Your task to perform on an android device: install app "Truecaller" Image 0: 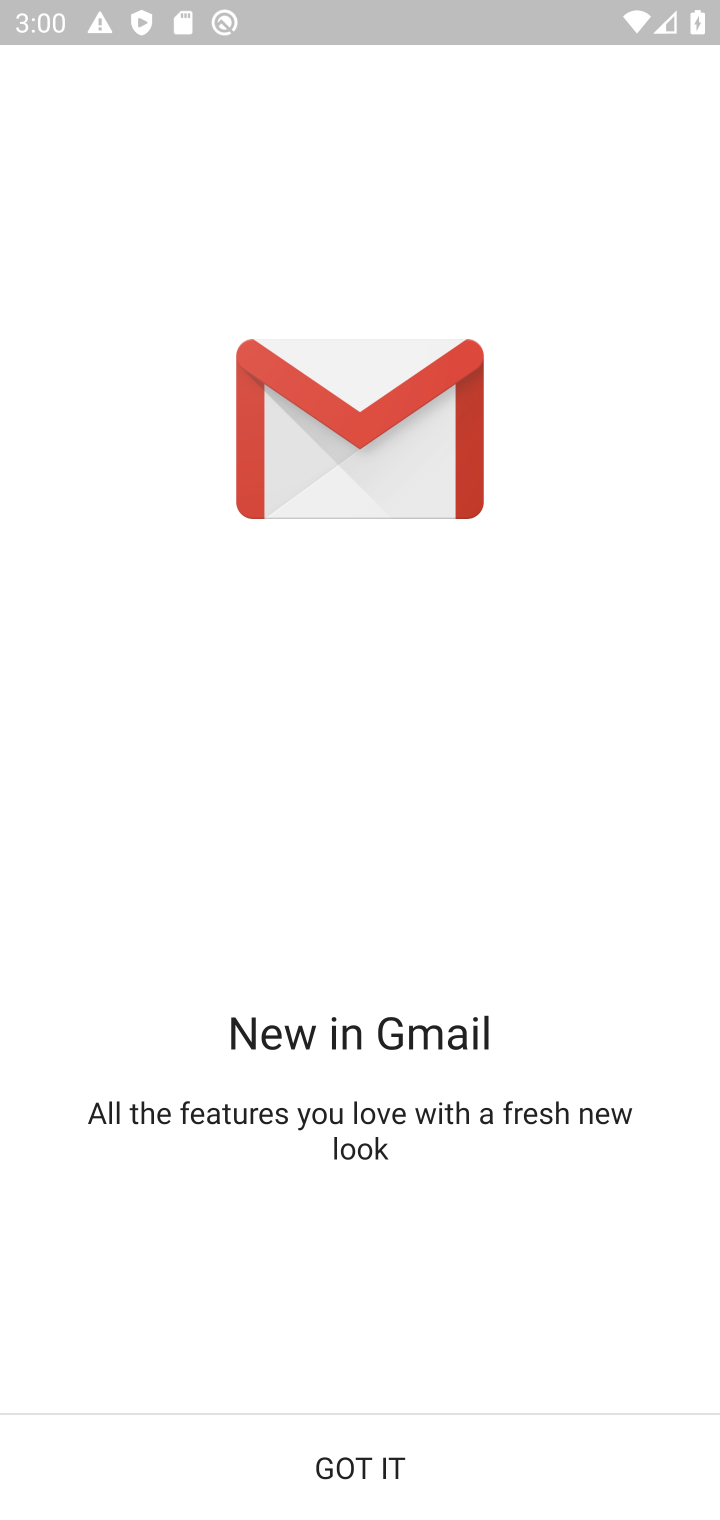
Step 0: press home button
Your task to perform on an android device: install app "Truecaller" Image 1: 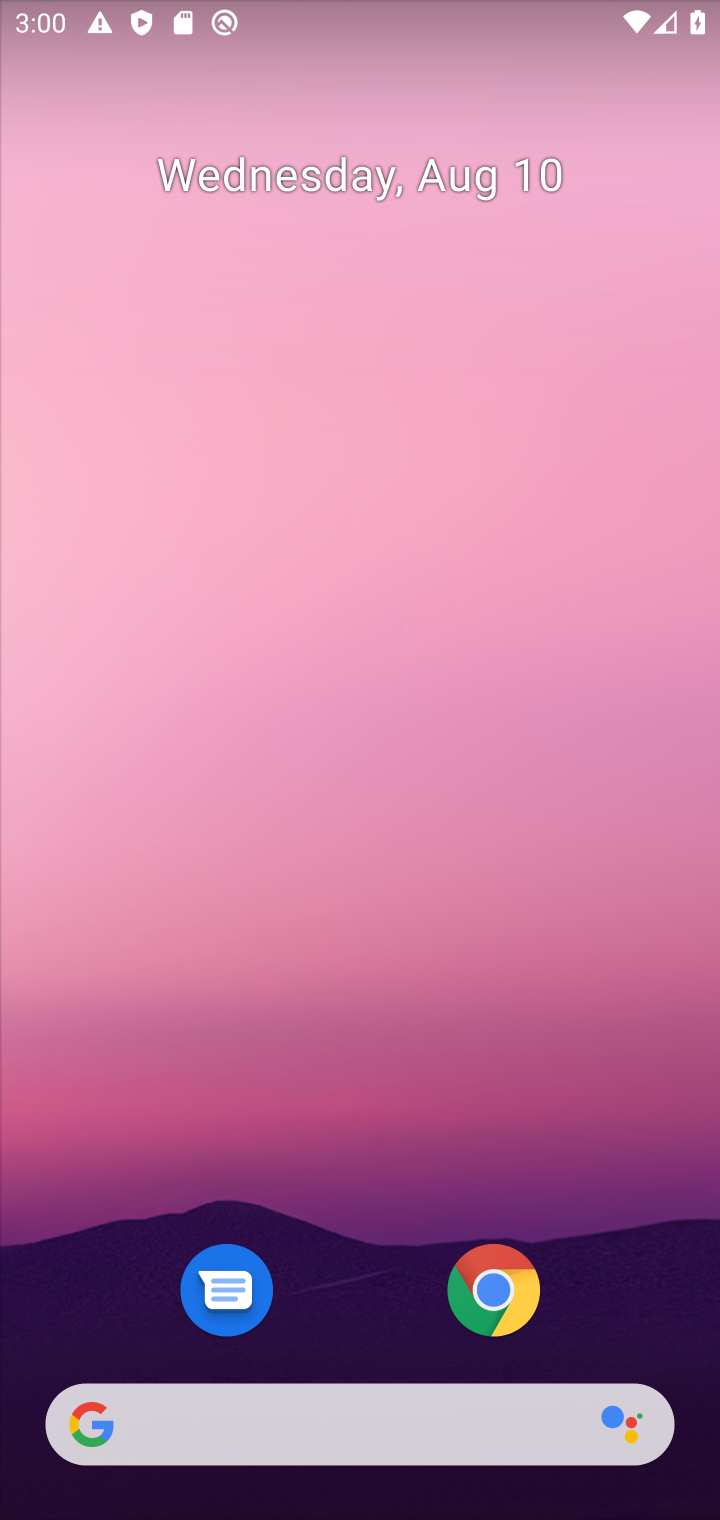
Step 1: drag from (316, 1364) to (160, 20)
Your task to perform on an android device: install app "Truecaller" Image 2: 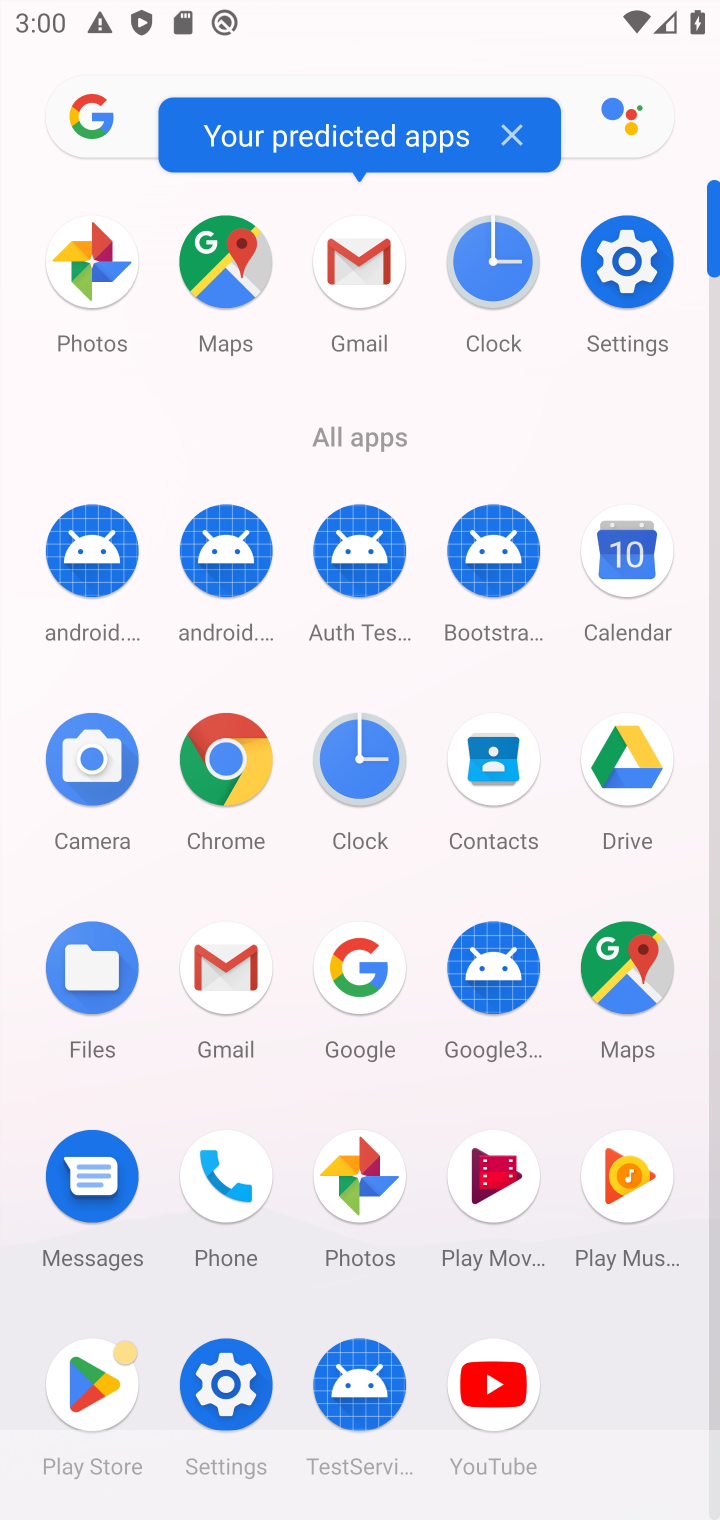
Step 2: click (82, 1407)
Your task to perform on an android device: install app "Truecaller" Image 3: 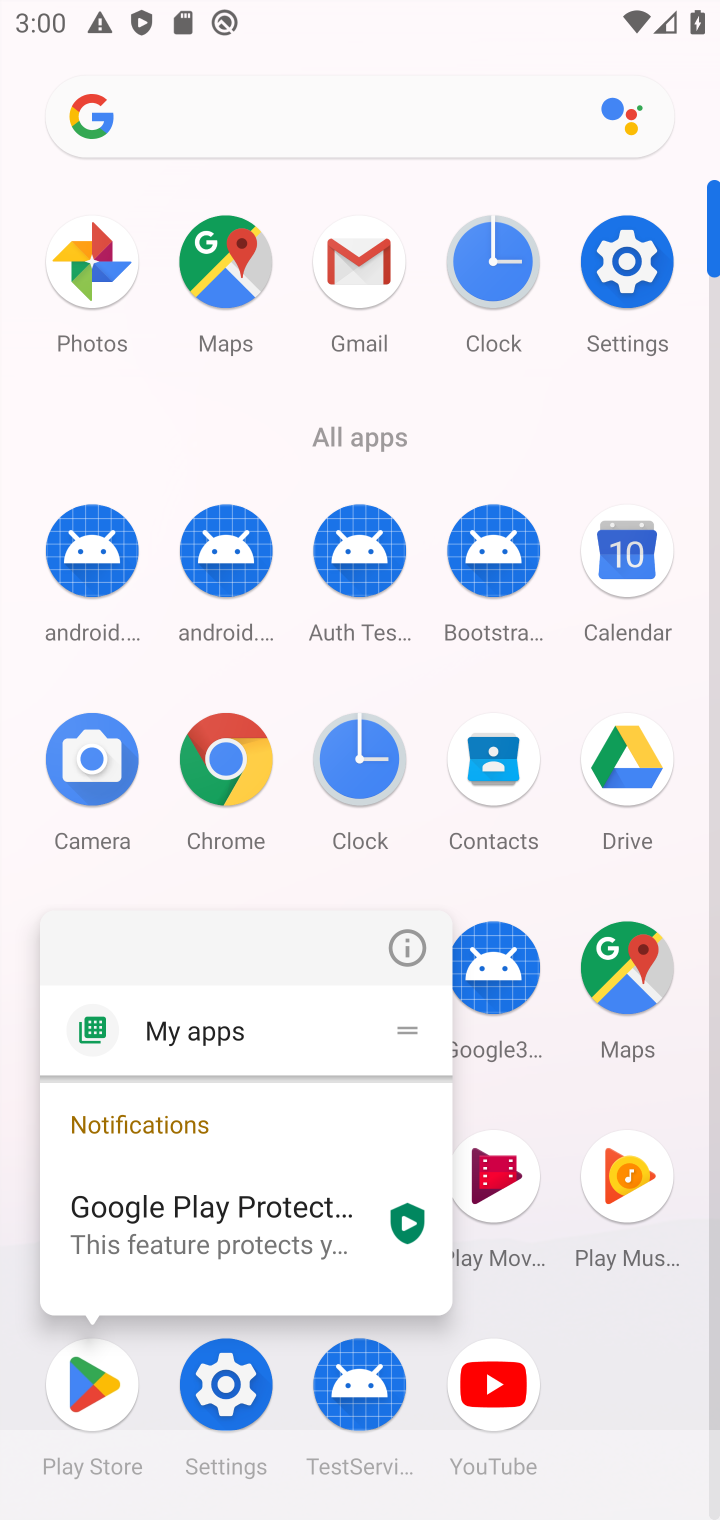
Step 3: click (122, 1396)
Your task to perform on an android device: install app "Truecaller" Image 4: 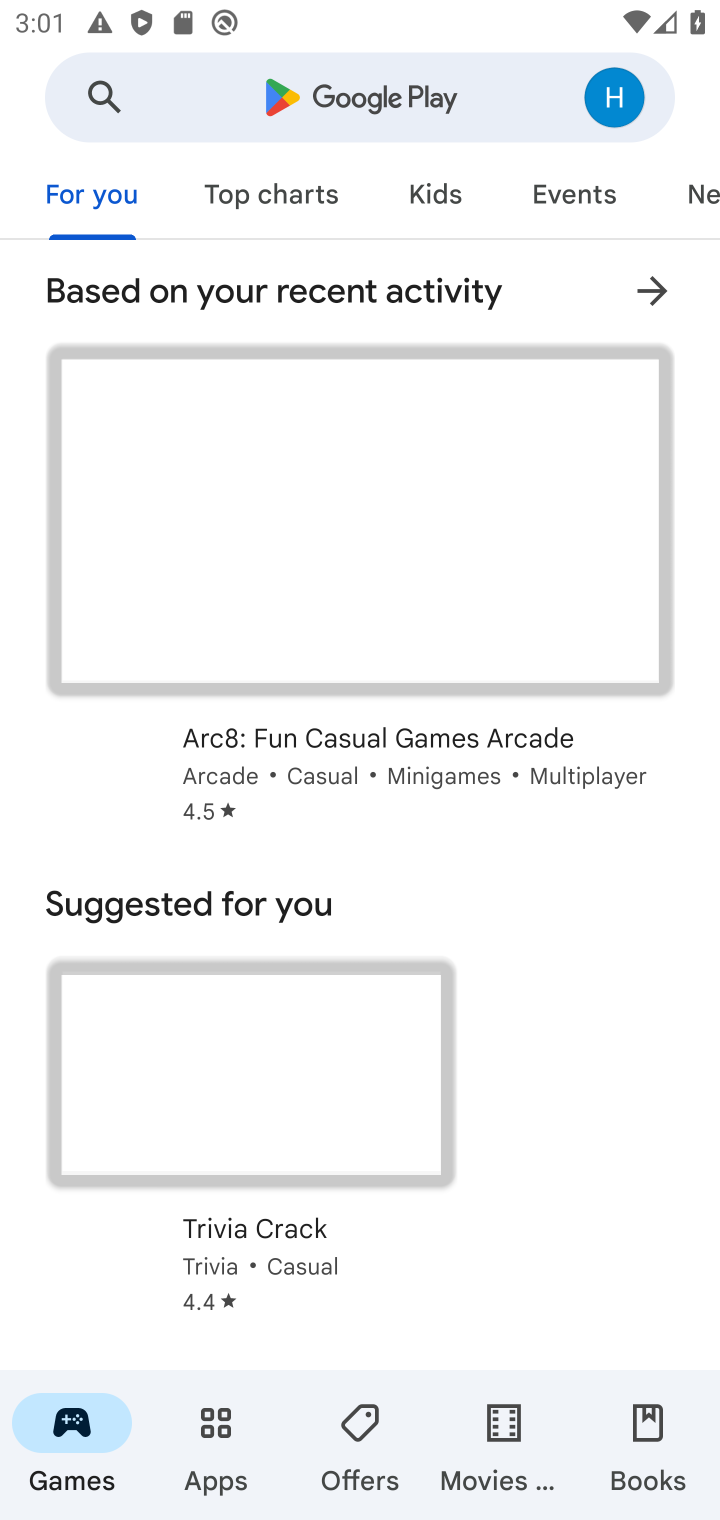
Step 4: click (376, 123)
Your task to perform on an android device: install app "Truecaller" Image 5: 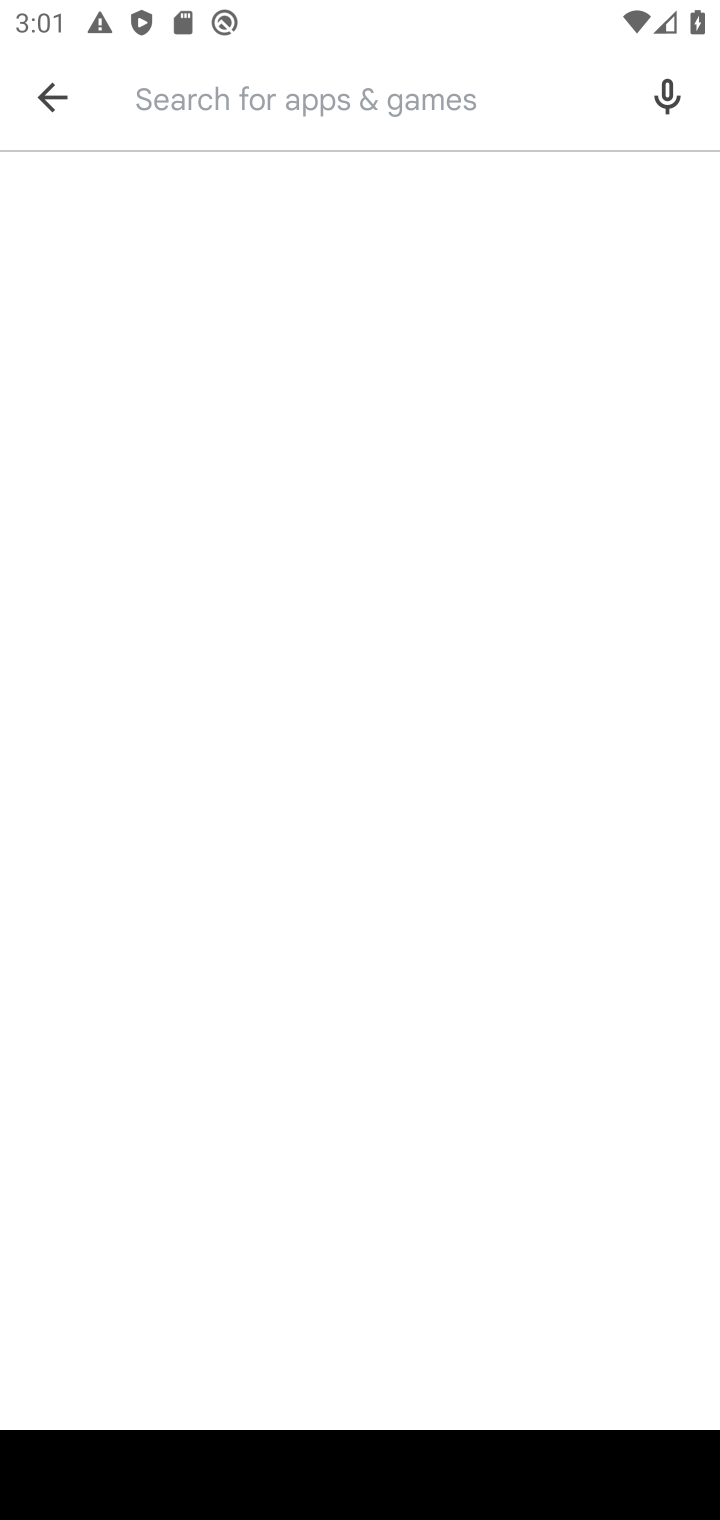
Step 5: type "Truecaller"
Your task to perform on an android device: install app "Truecaller" Image 6: 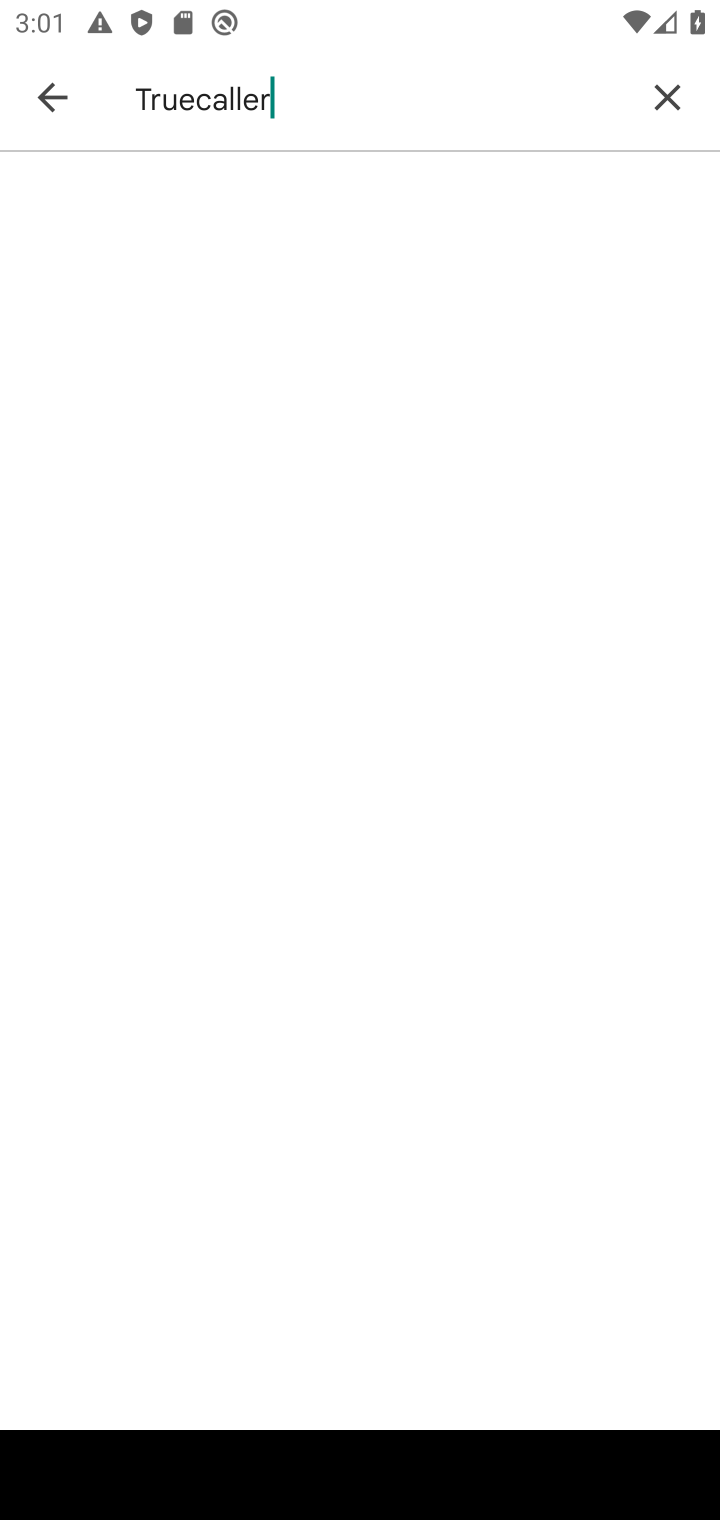
Step 6: type ""
Your task to perform on an android device: install app "Truecaller" Image 7: 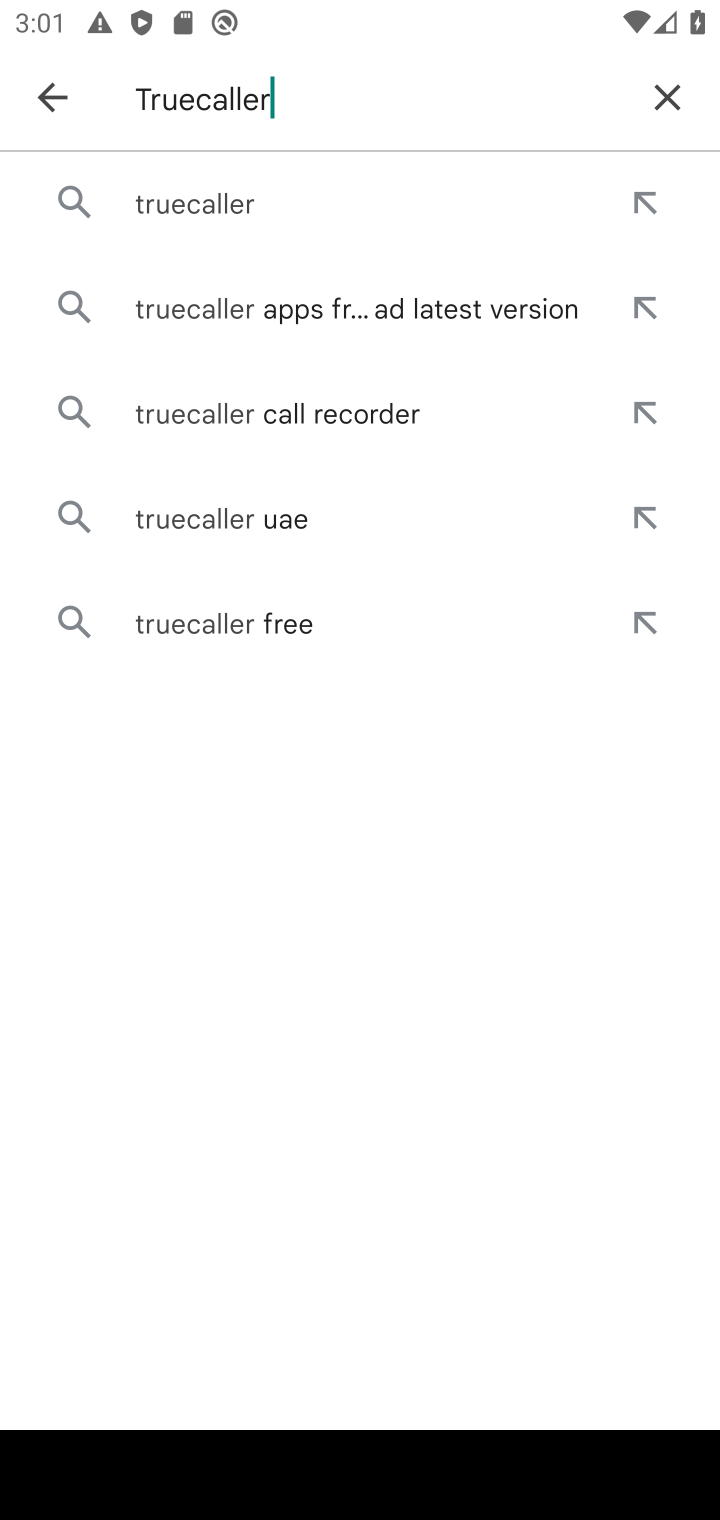
Step 7: click (163, 188)
Your task to perform on an android device: install app "Truecaller" Image 8: 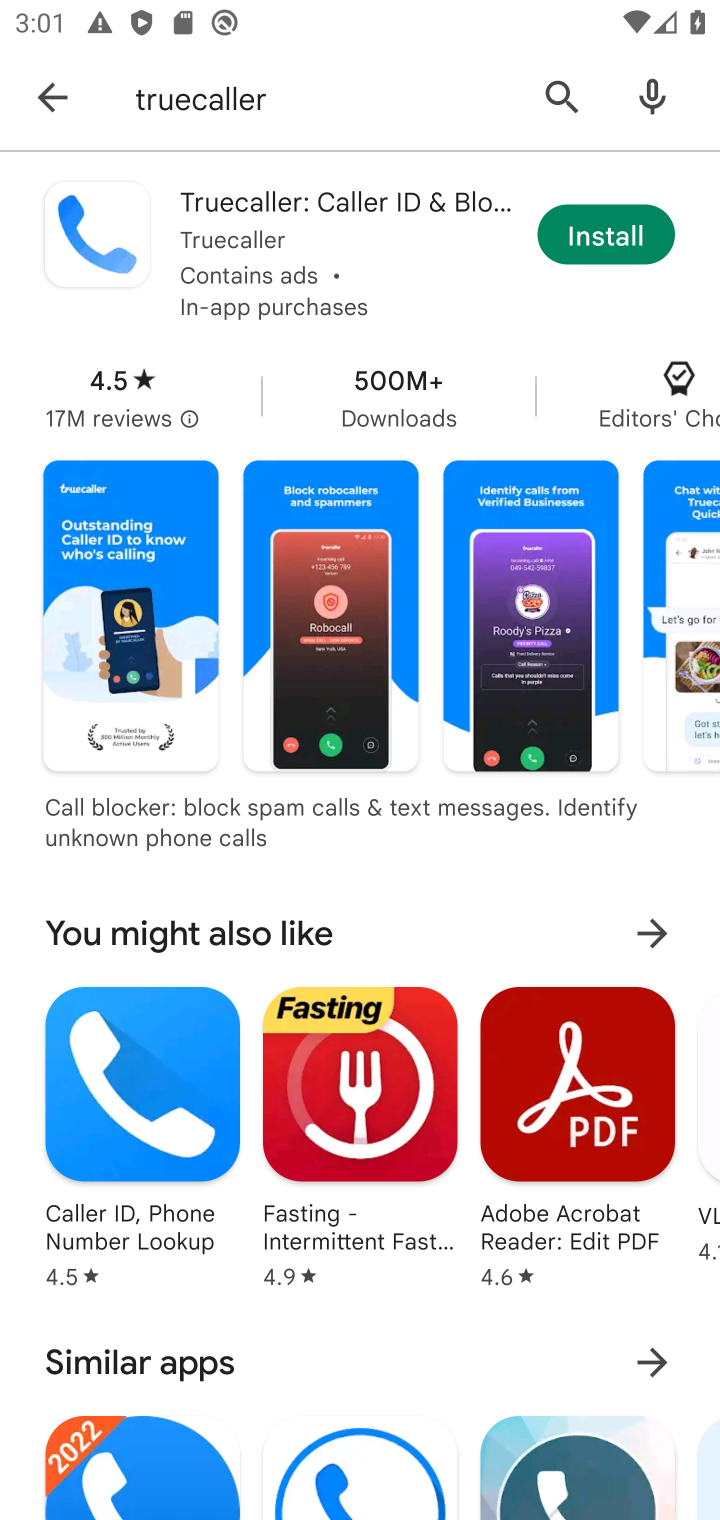
Step 8: click (643, 245)
Your task to perform on an android device: install app "Truecaller" Image 9: 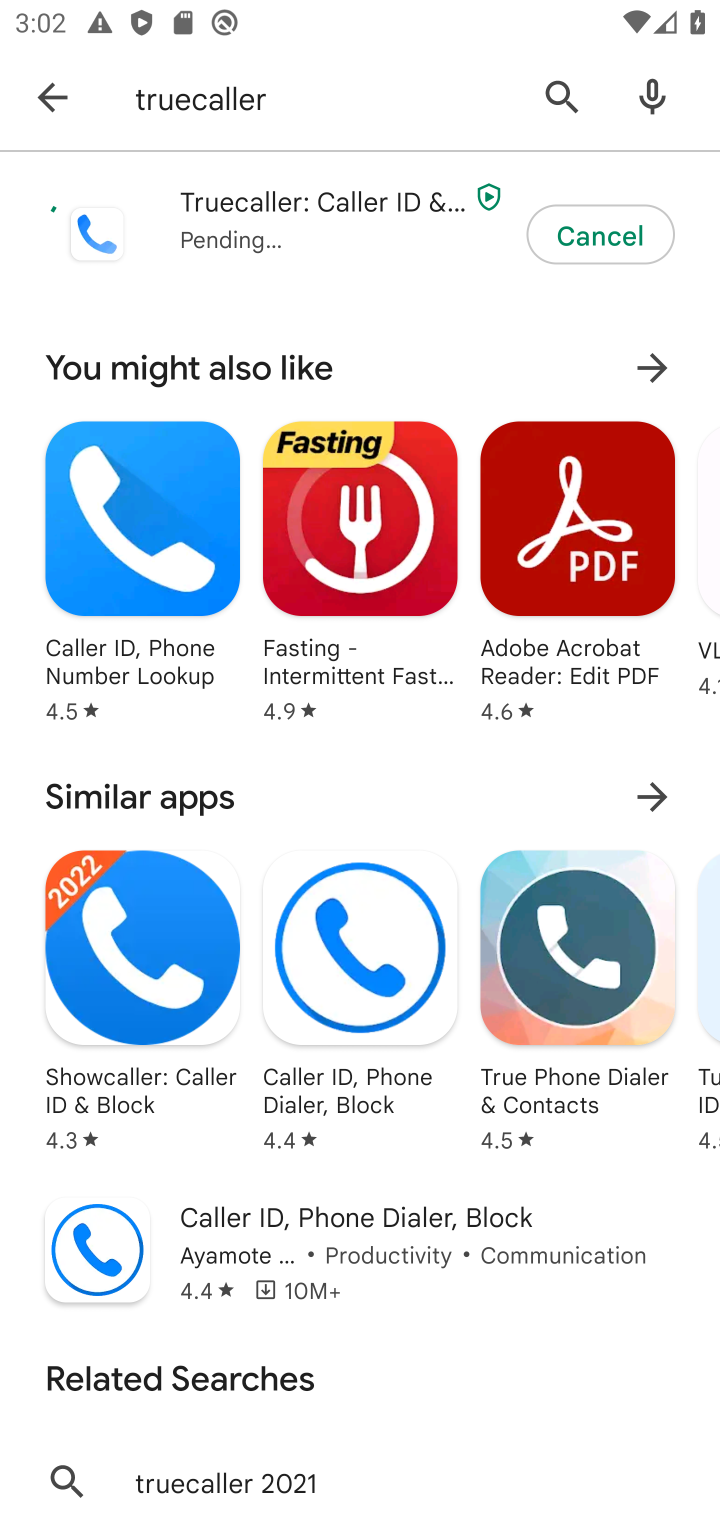
Step 9: click (95, 94)
Your task to perform on an android device: install app "Truecaller" Image 10: 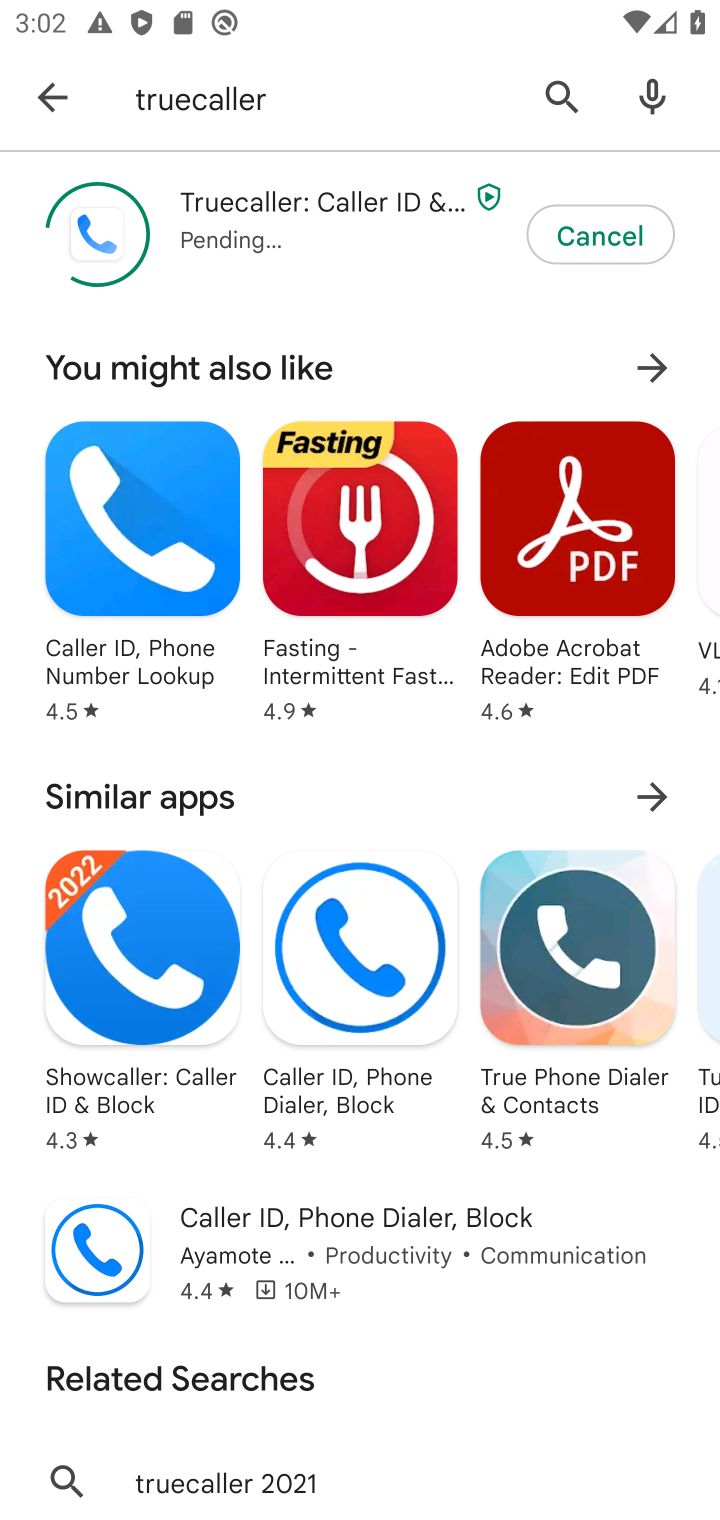
Step 10: click (35, 104)
Your task to perform on an android device: install app "Truecaller" Image 11: 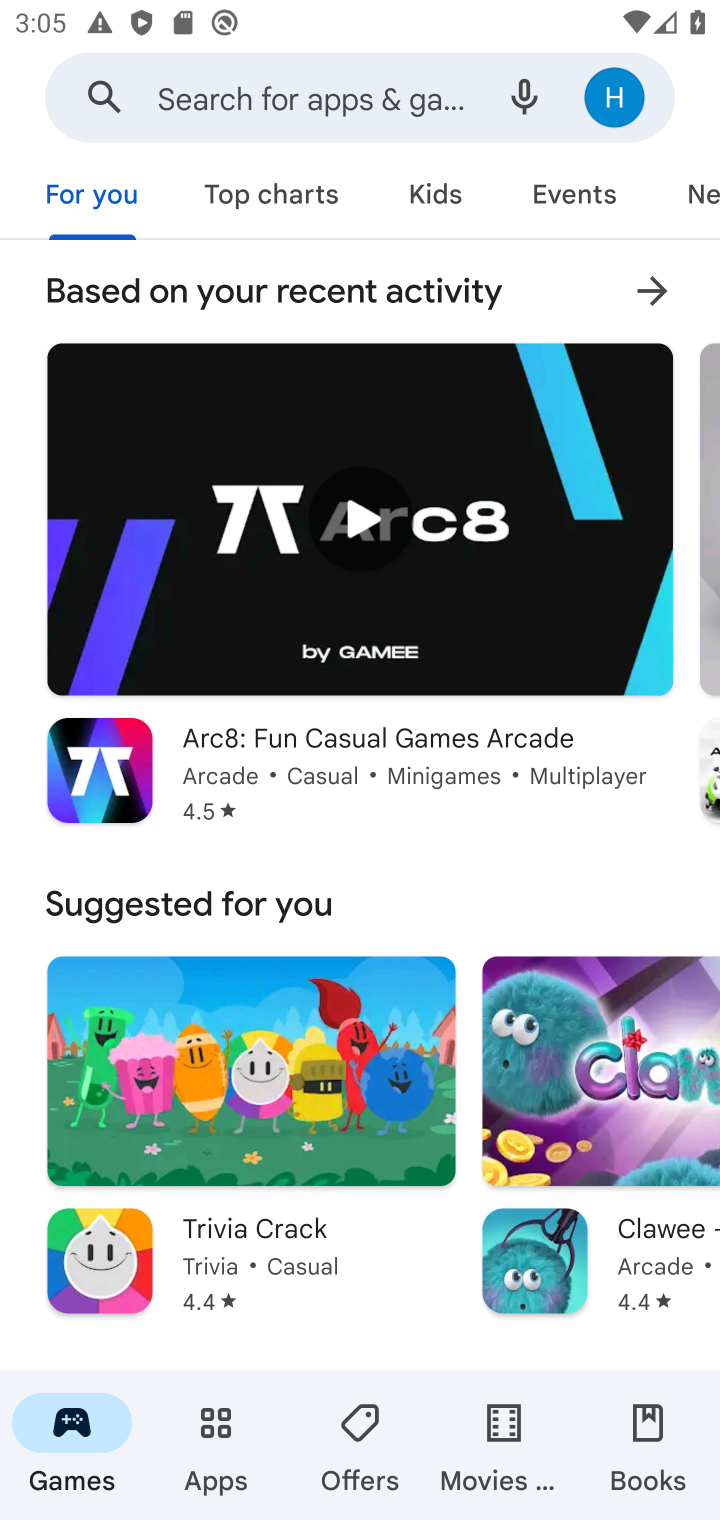
Step 11: click (207, 130)
Your task to perform on an android device: install app "Truecaller" Image 12: 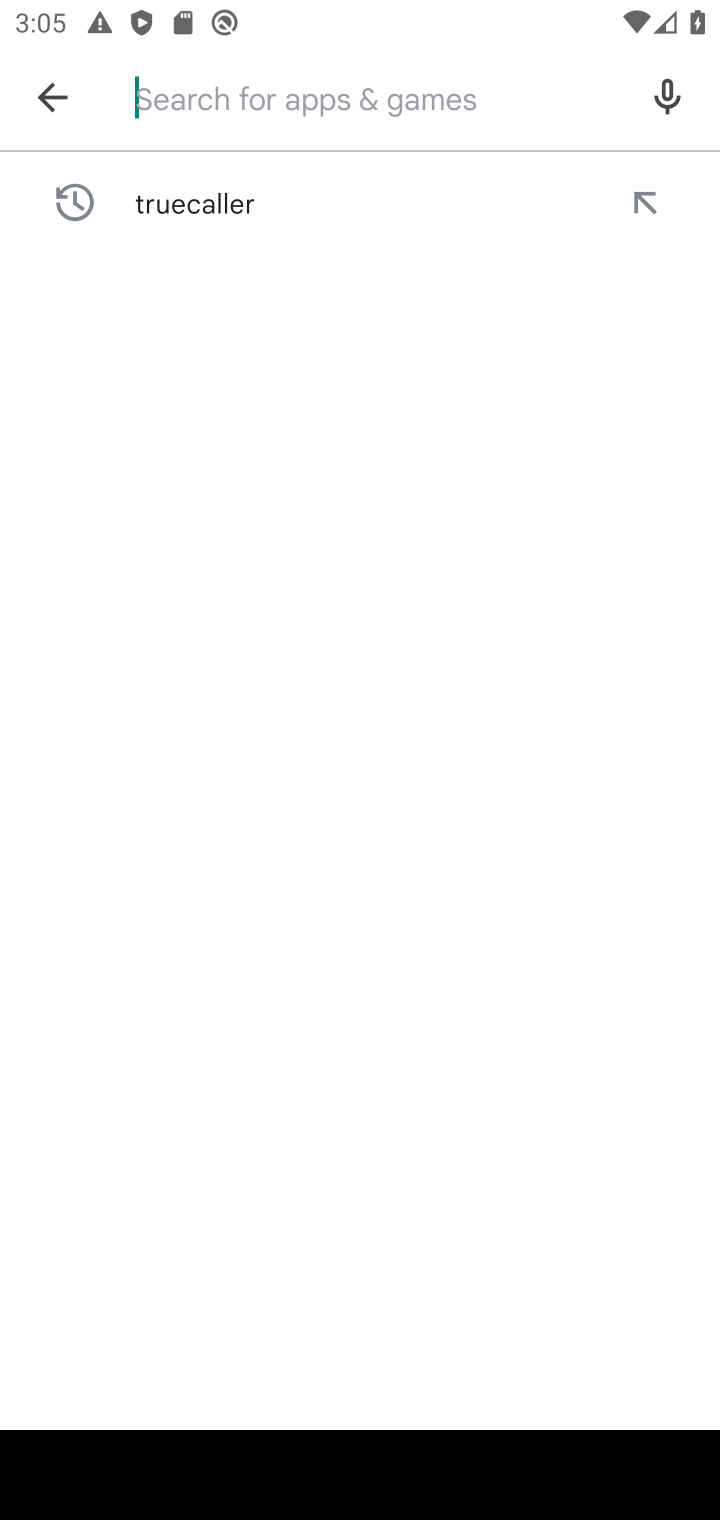
Step 12: click (222, 167)
Your task to perform on an android device: install app "Truecaller" Image 13: 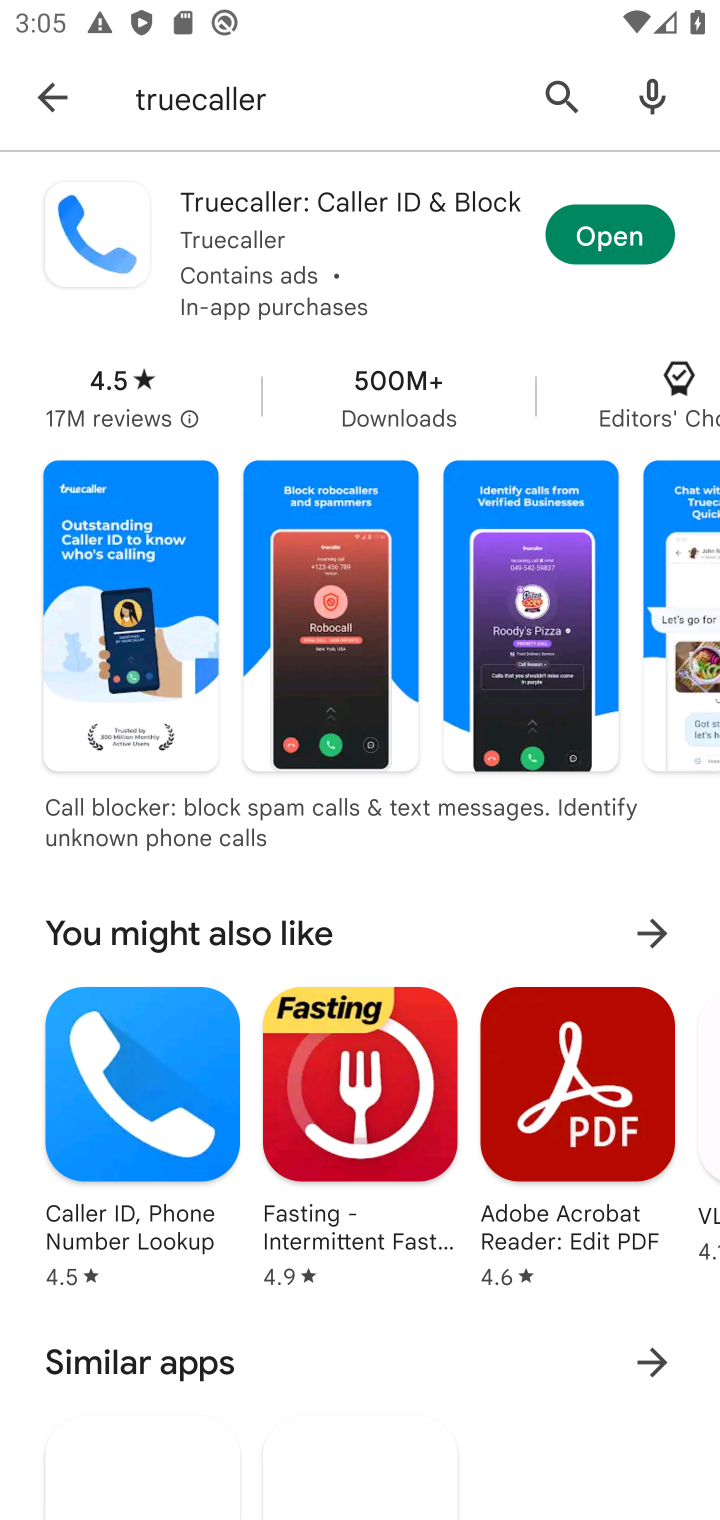
Step 13: click (569, 234)
Your task to perform on an android device: install app "Truecaller" Image 14: 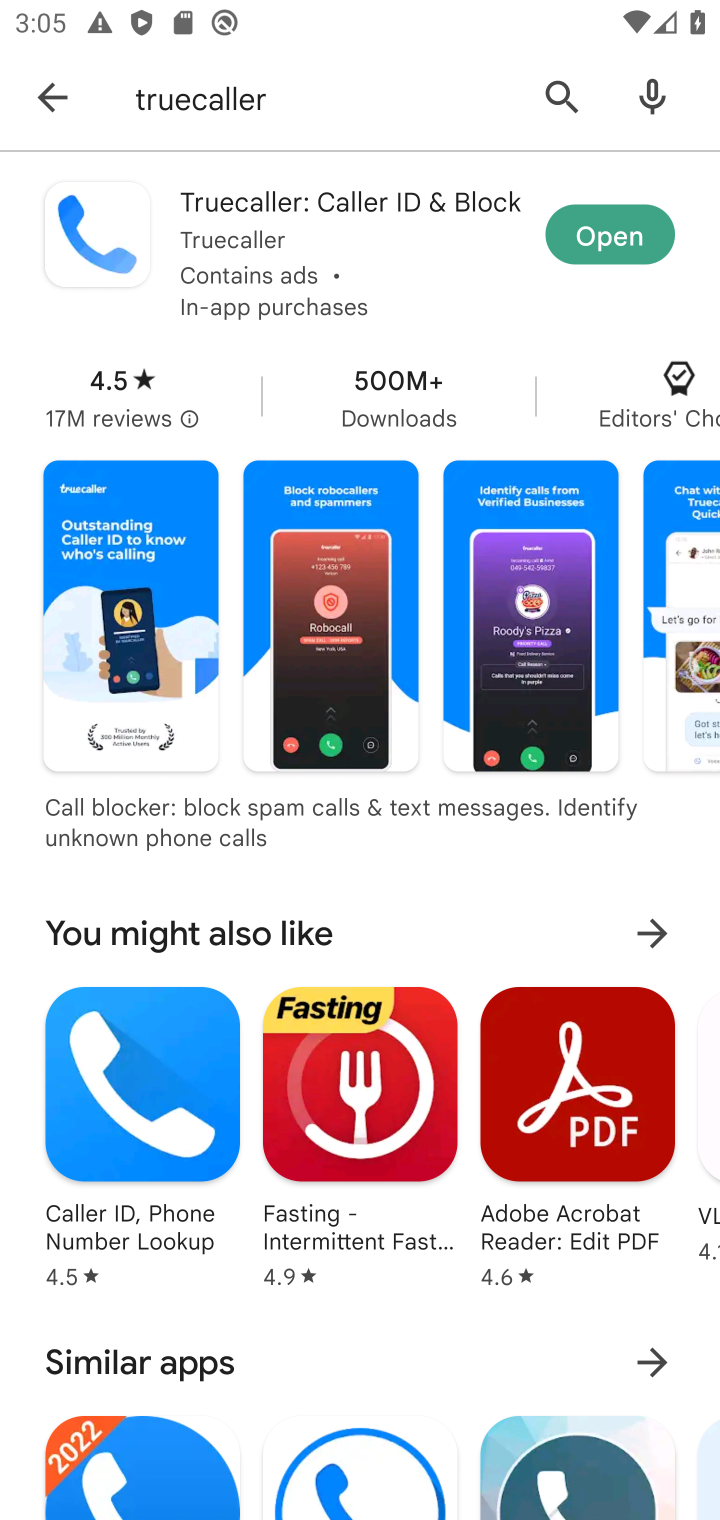
Step 14: task complete